Your task to perform on an android device: Open Chrome and go to the settings page Image 0: 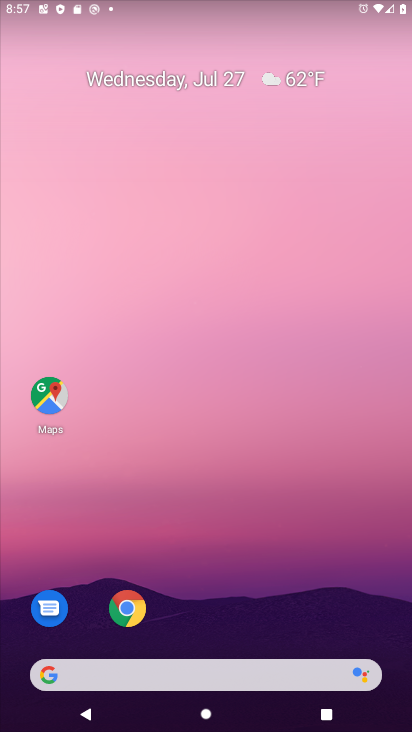
Step 0: click (120, 608)
Your task to perform on an android device: Open Chrome and go to the settings page Image 1: 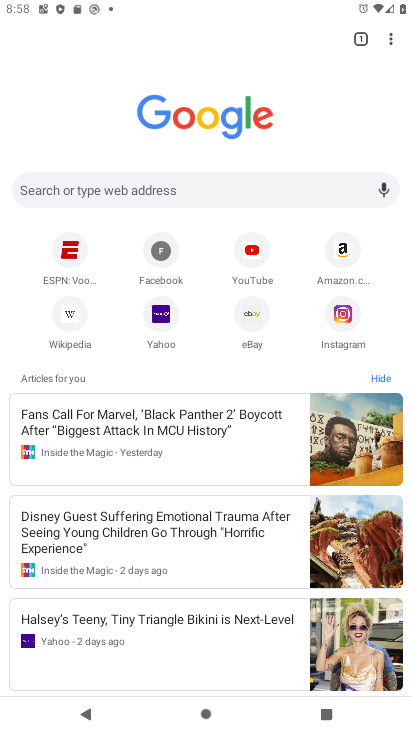
Step 1: click (392, 39)
Your task to perform on an android device: Open Chrome and go to the settings page Image 2: 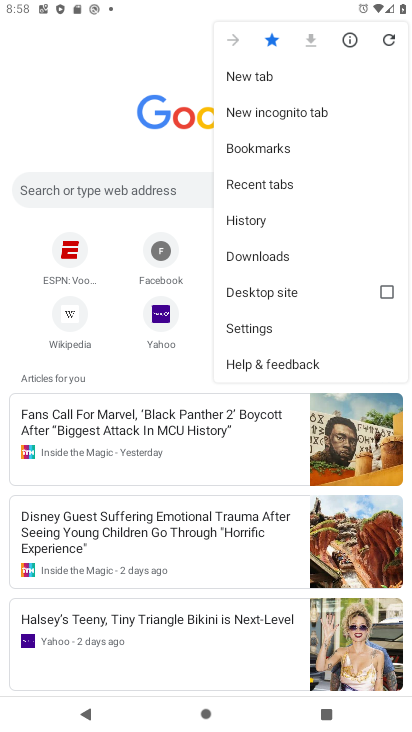
Step 2: click (263, 327)
Your task to perform on an android device: Open Chrome and go to the settings page Image 3: 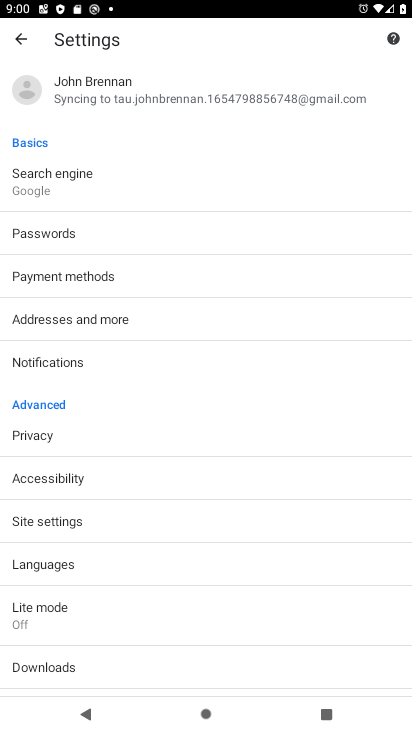
Step 3: task complete